Your task to perform on an android device: toggle javascript in the chrome app Image 0: 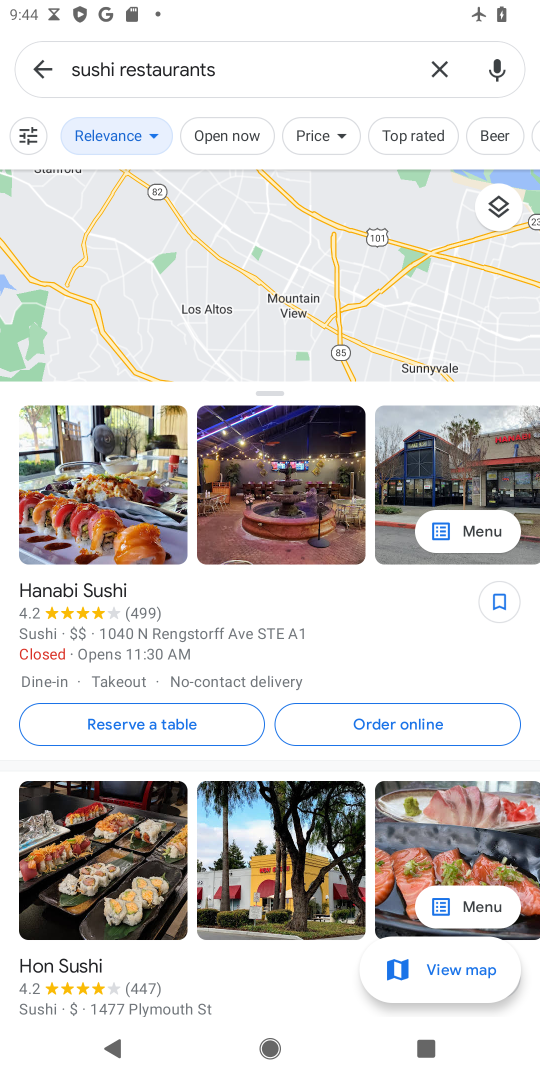
Step 0: press home button
Your task to perform on an android device: toggle javascript in the chrome app Image 1: 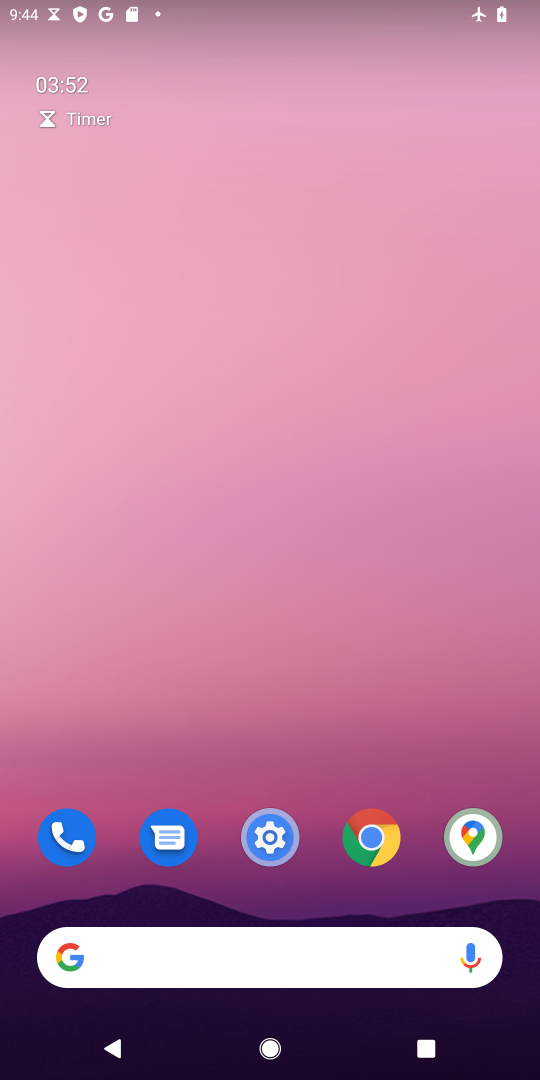
Step 1: drag from (338, 914) to (338, 114)
Your task to perform on an android device: toggle javascript in the chrome app Image 2: 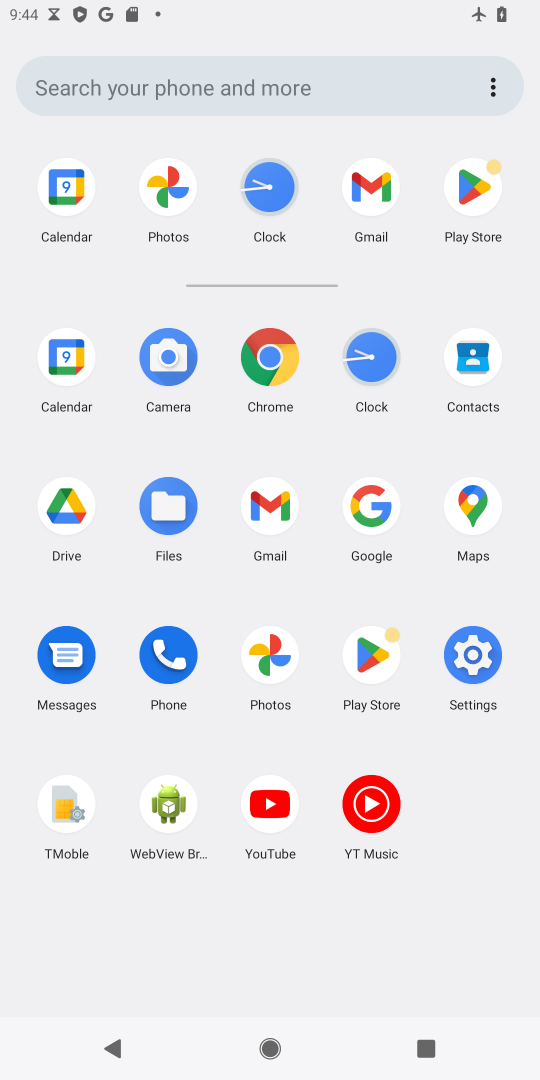
Step 2: click (282, 351)
Your task to perform on an android device: toggle javascript in the chrome app Image 3: 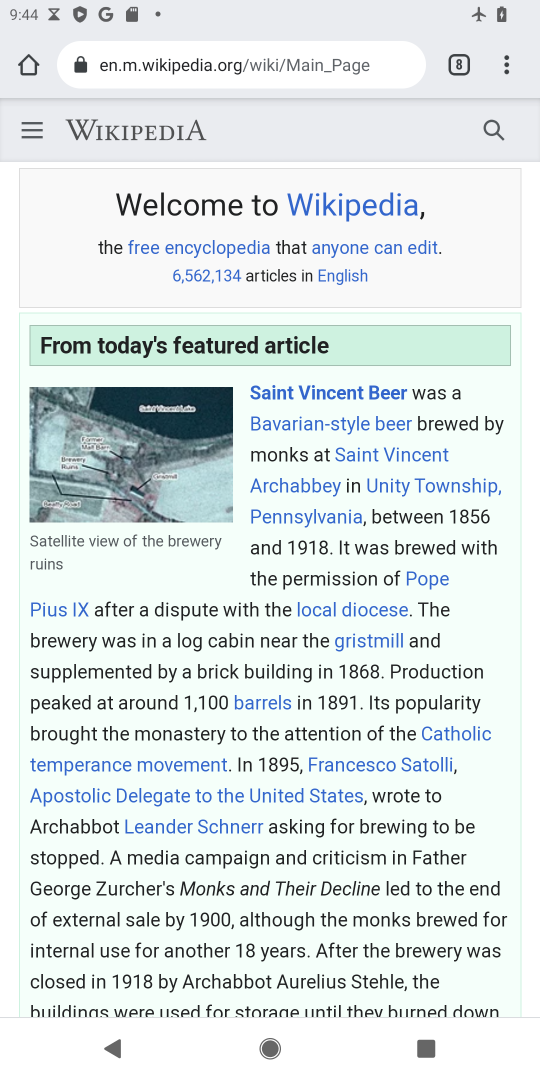
Step 3: drag from (507, 72) to (337, 811)
Your task to perform on an android device: toggle javascript in the chrome app Image 4: 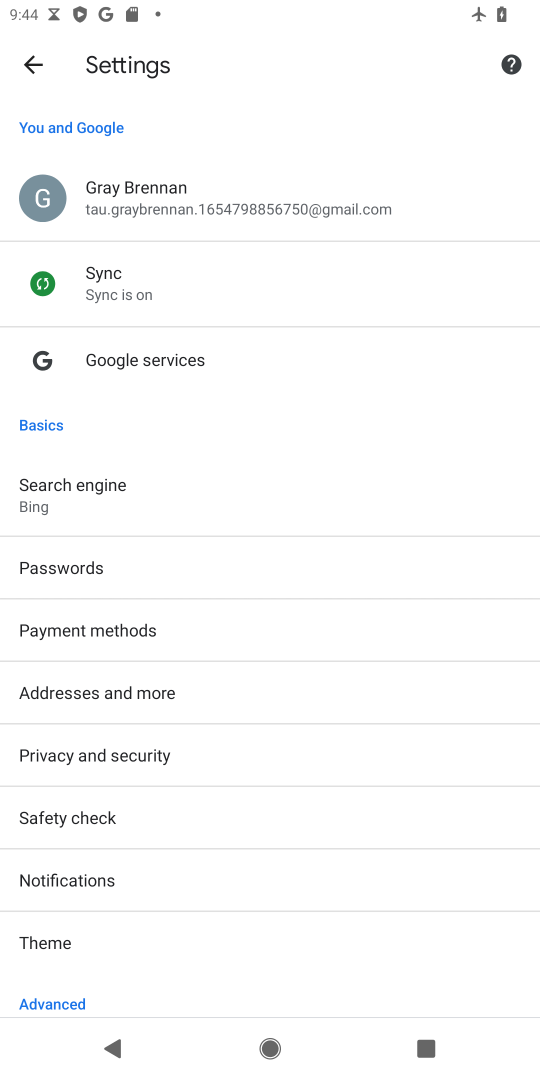
Step 4: drag from (121, 949) to (123, 518)
Your task to perform on an android device: toggle javascript in the chrome app Image 5: 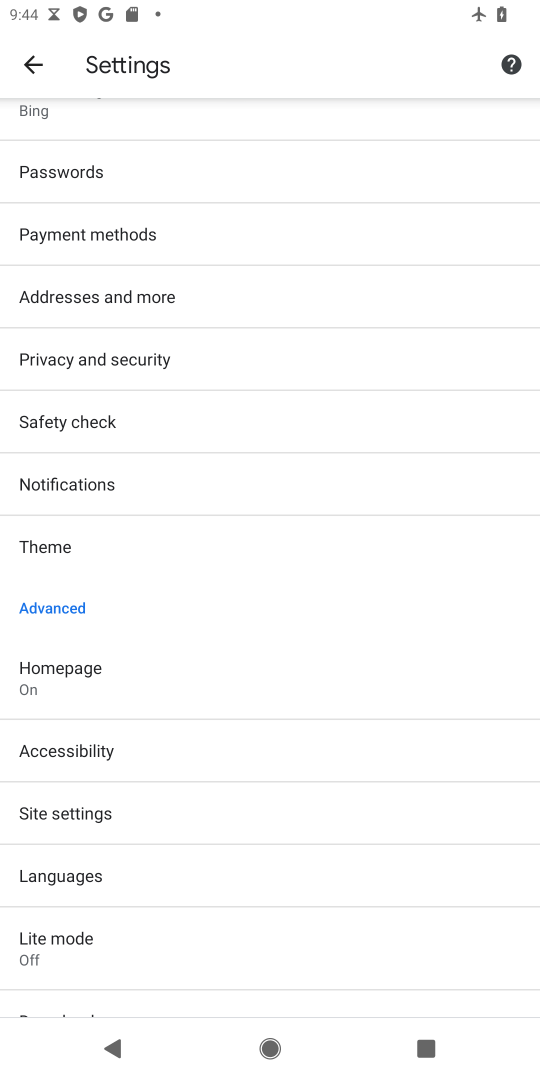
Step 5: click (74, 815)
Your task to perform on an android device: toggle javascript in the chrome app Image 6: 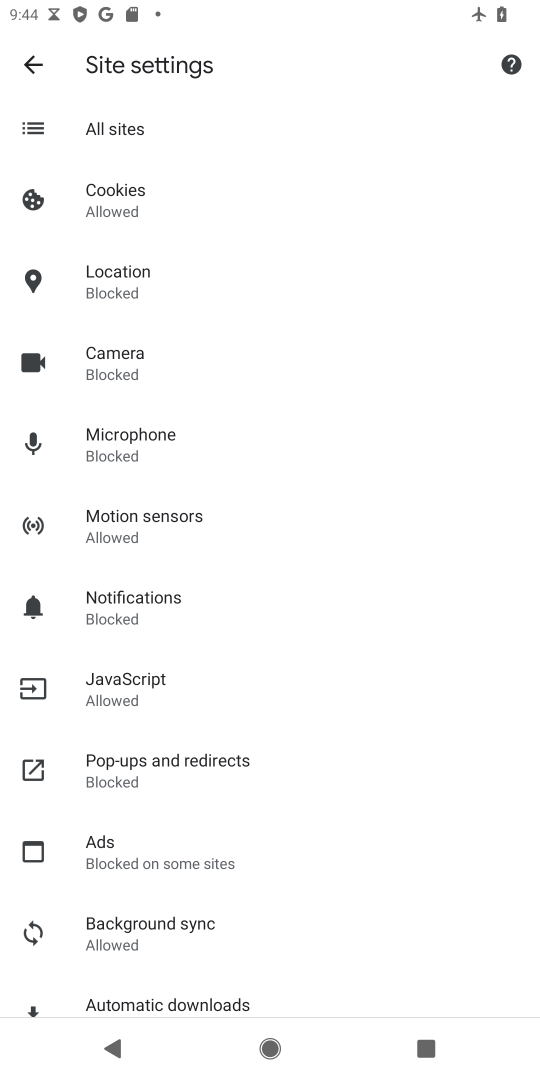
Step 6: click (133, 688)
Your task to perform on an android device: toggle javascript in the chrome app Image 7: 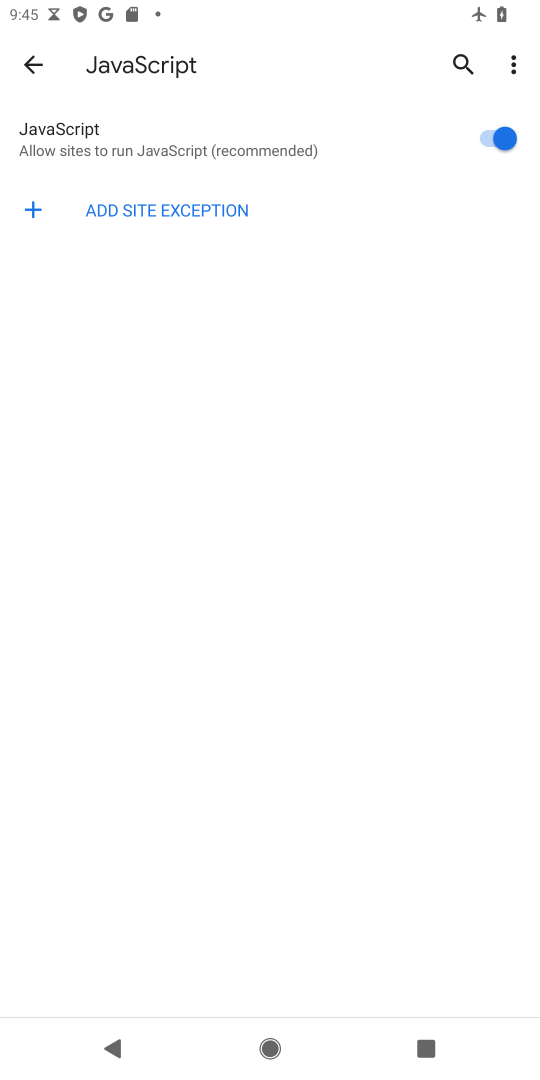
Step 7: click (500, 135)
Your task to perform on an android device: toggle javascript in the chrome app Image 8: 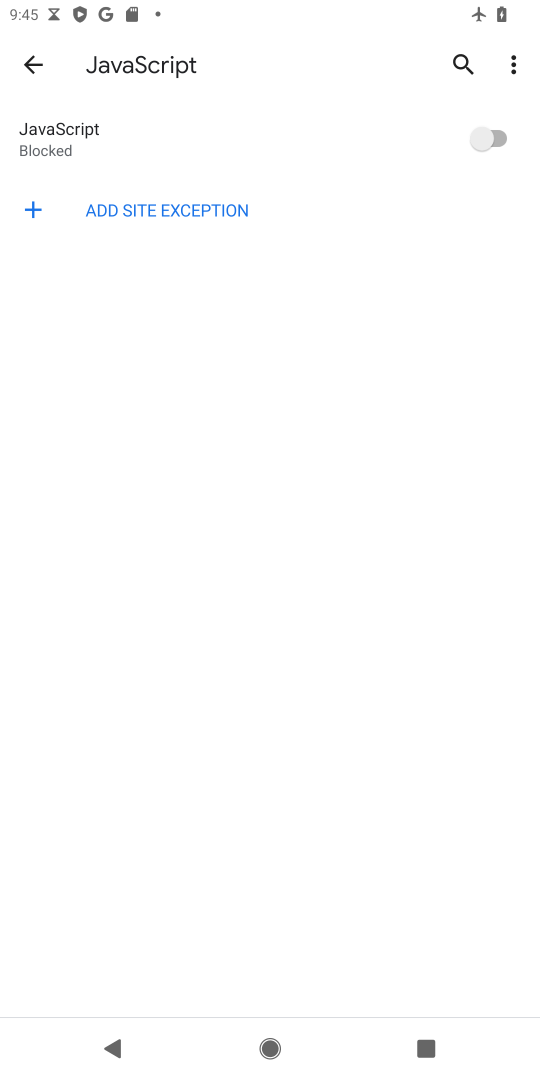
Step 8: task complete